Your task to perform on an android device: When is my next meeting? Image 0: 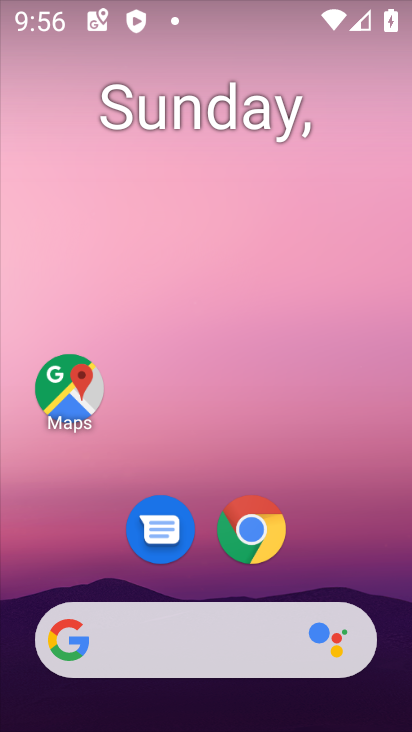
Step 0: drag from (334, 594) to (372, 8)
Your task to perform on an android device: When is my next meeting? Image 1: 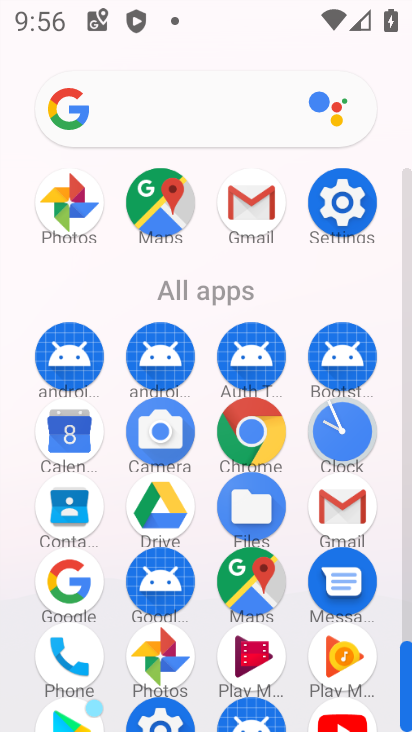
Step 1: click (77, 442)
Your task to perform on an android device: When is my next meeting? Image 2: 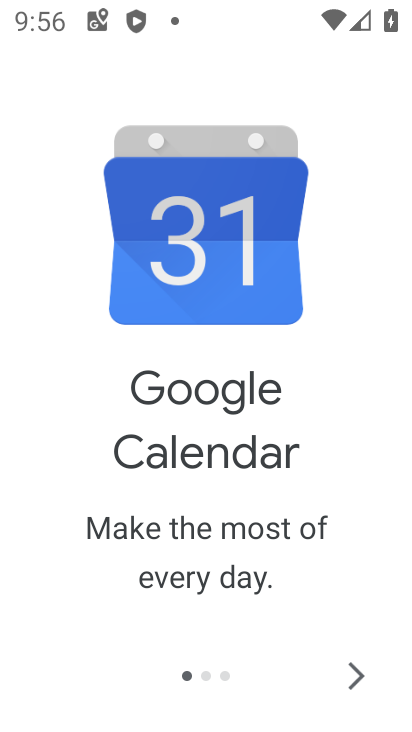
Step 2: click (358, 676)
Your task to perform on an android device: When is my next meeting? Image 3: 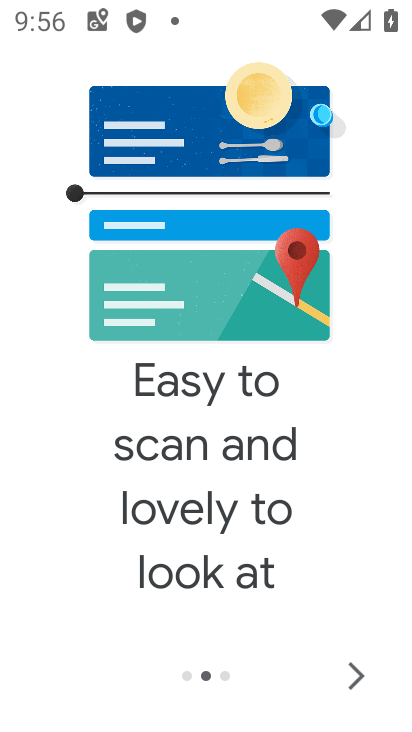
Step 3: click (355, 677)
Your task to perform on an android device: When is my next meeting? Image 4: 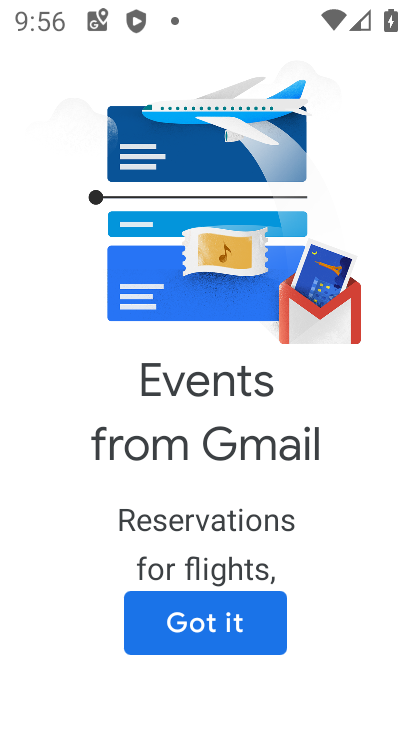
Step 4: click (267, 618)
Your task to perform on an android device: When is my next meeting? Image 5: 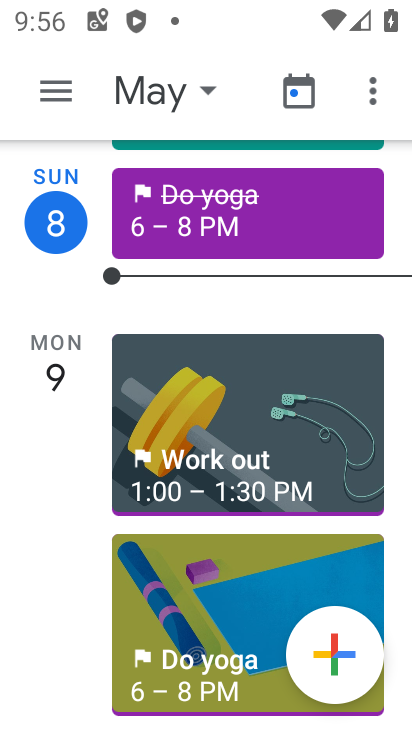
Step 5: click (201, 92)
Your task to perform on an android device: When is my next meeting? Image 6: 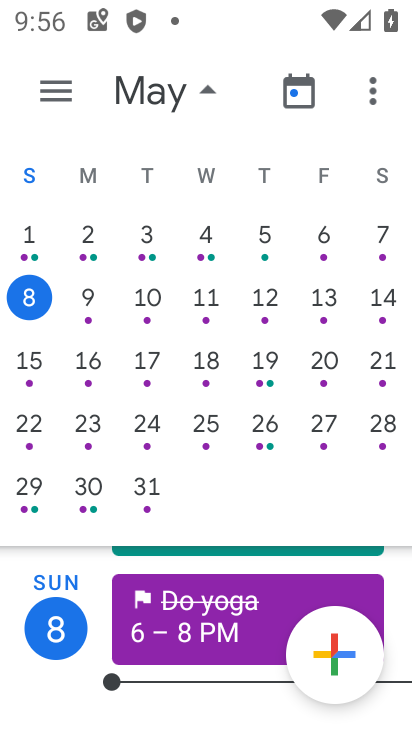
Step 6: task complete